Your task to perform on an android device: open app "Fetch Rewards" Image 0: 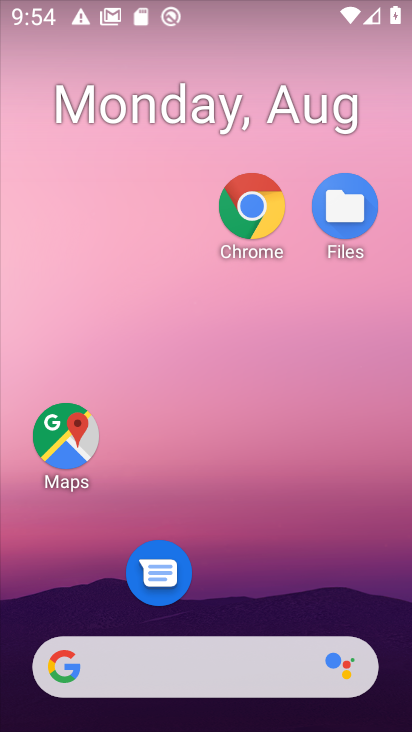
Step 0: drag from (207, 594) to (144, 31)
Your task to perform on an android device: open app "Fetch Rewards" Image 1: 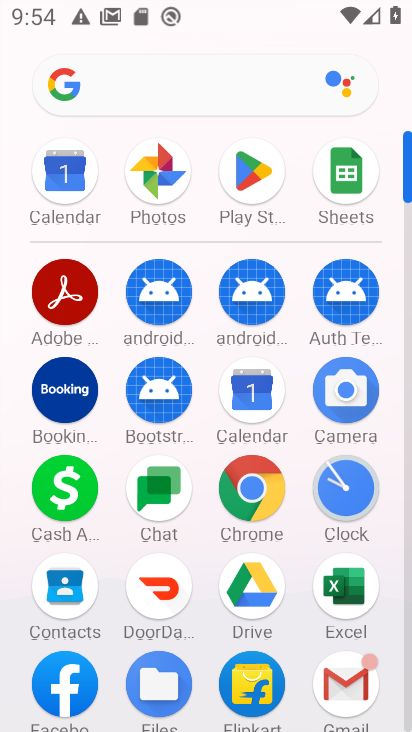
Step 1: click (252, 184)
Your task to perform on an android device: open app "Fetch Rewards" Image 2: 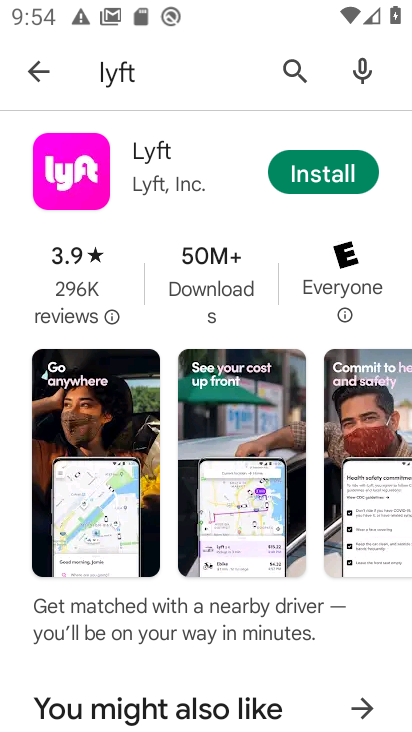
Step 2: click (291, 77)
Your task to perform on an android device: open app "Fetch Rewards" Image 3: 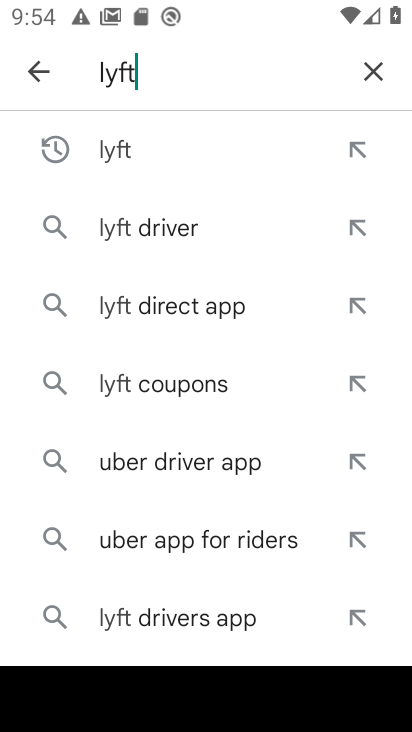
Step 3: click (374, 67)
Your task to perform on an android device: open app "Fetch Rewards" Image 4: 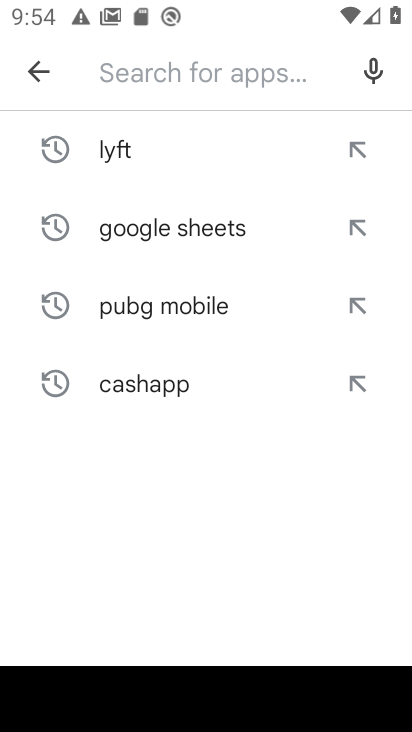
Step 4: type "fetch rewards"
Your task to perform on an android device: open app "Fetch Rewards" Image 5: 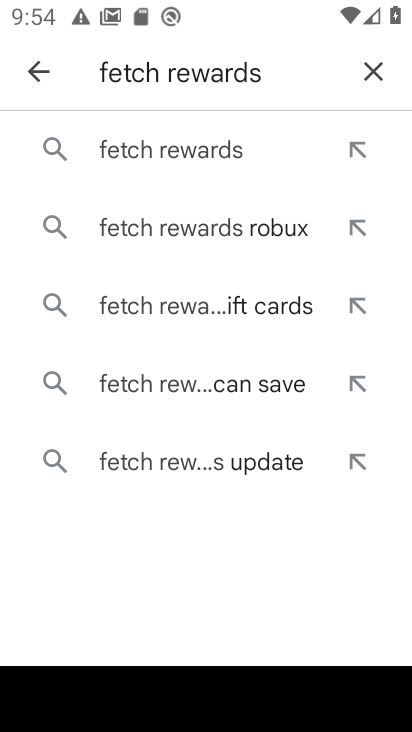
Step 5: click (246, 155)
Your task to perform on an android device: open app "Fetch Rewards" Image 6: 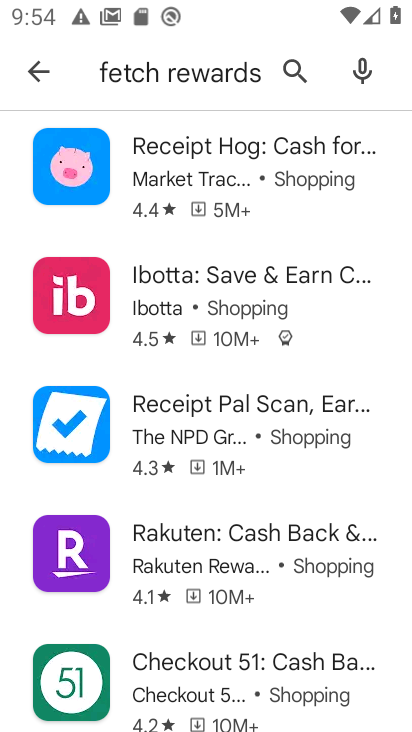
Step 6: task complete